Your task to perform on an android device: find photos in the google photos app Image 0: 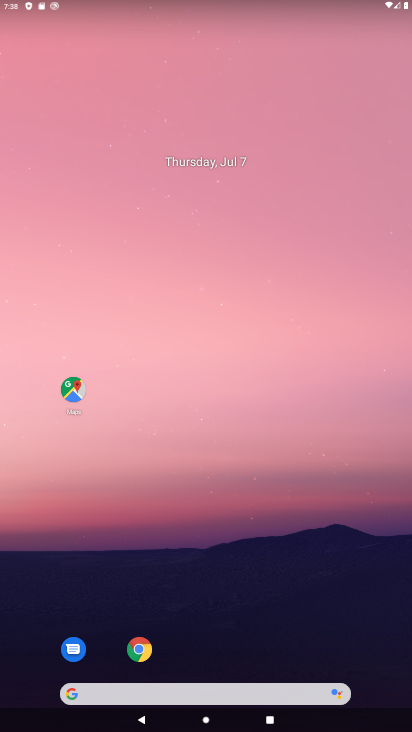
Step 0: drag from (221, 514) to (285, 148)
Your task to perform on an android device: find photos in the google photos app Image 1: 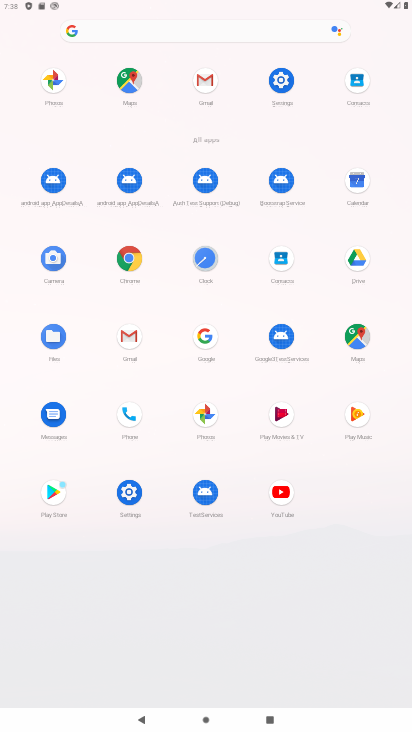
Step 1: click (216, 413)
Your task to perform on an android device: find photos in the google photos app Image 2: 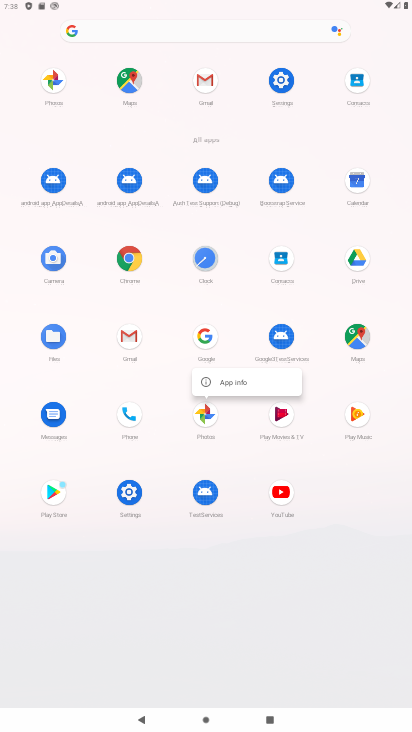
Step 2: click (212, 419)
Your task to perform on an android device: find photos in the google photos app Image 3: 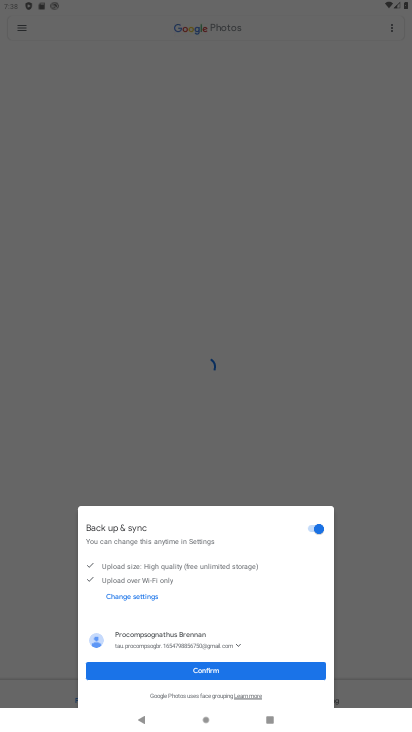
Step 3: click (188, 663)
Your task to perform on an android device: find photos in the google photos app Image 4: 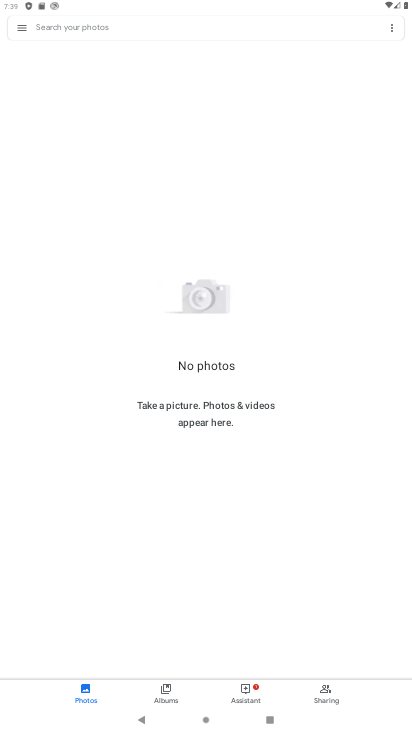
Step 4: task complete